Your task to perform on an android device: check storage Image 0: 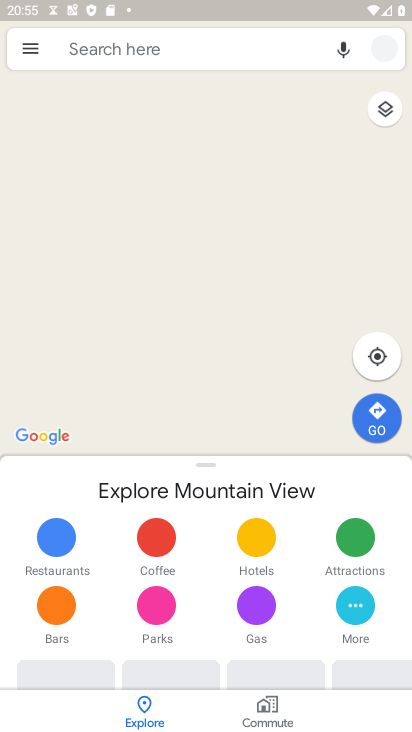
Step 0: press home button
Your task to perform on an android device: check storage Image 1: 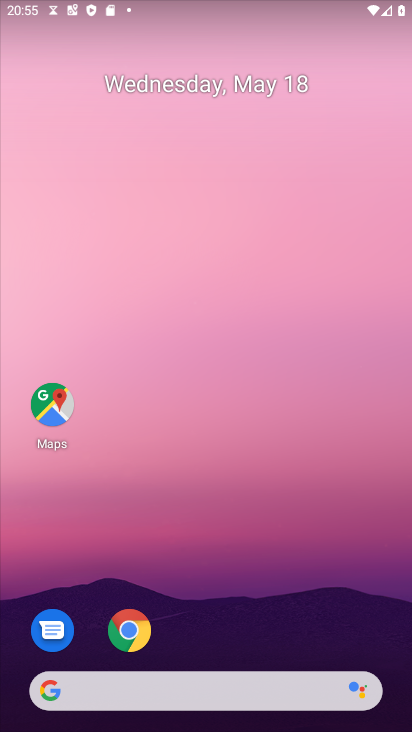
Step 1: drag from (171, 694) to (259, 264)
Your task to perform on an android device: check storage Image 2: 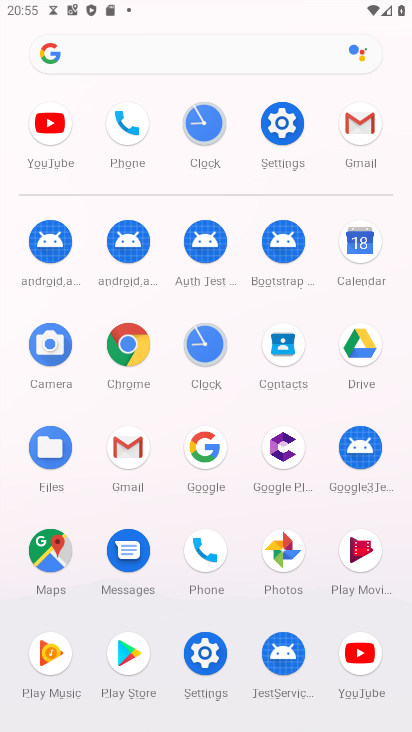
Step 2: click (277, 132)
Your task to perform on an android device: check storage Image 3: 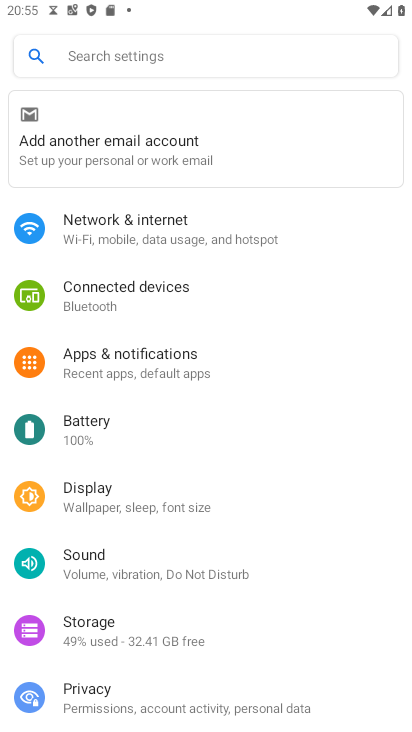
Step 3: click (114, 641)
Your task to perform on an android device: check storage Image 4: 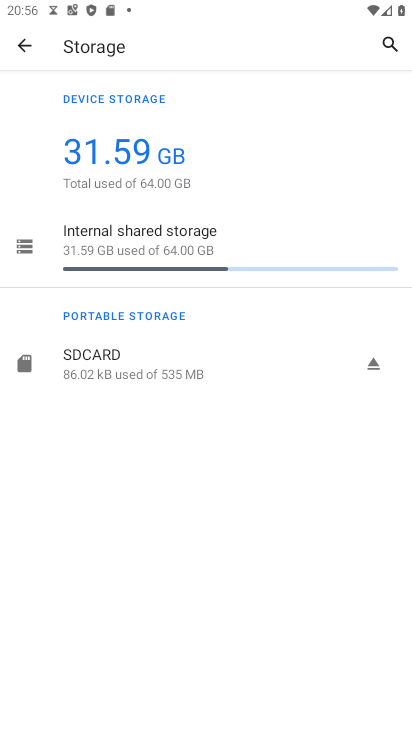
Step 4: task complete